Your task to perform on an android device: Go to privacy settings Image 0: 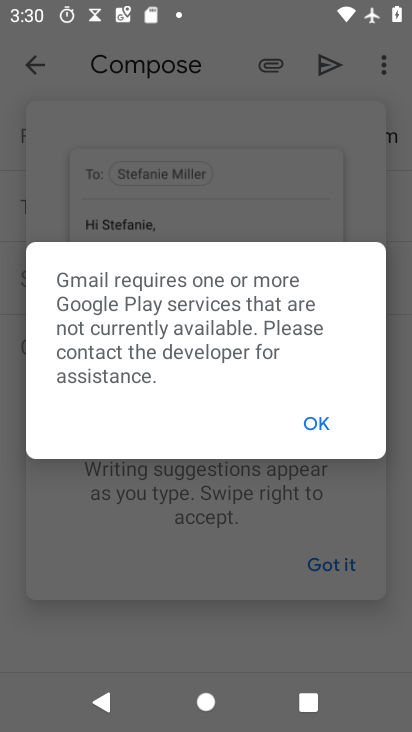
Step 0: press home button
Your task to perform on an android device: Go to privacy settings Image 1: 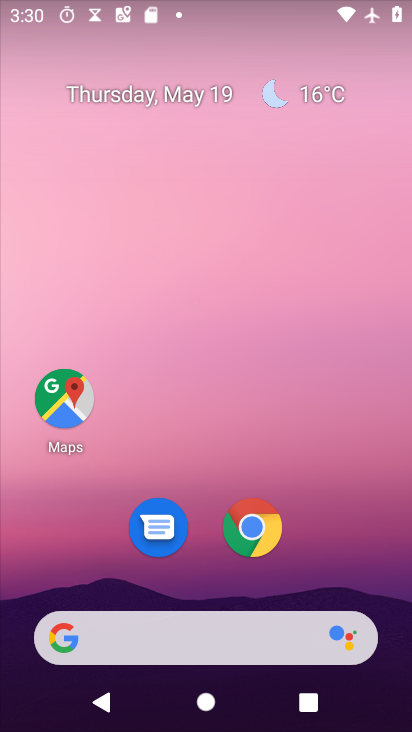
Step 1: drag from (318, 541) to (206, 8)
Your task to perform on an android device: Go to privacy settings Image 2: 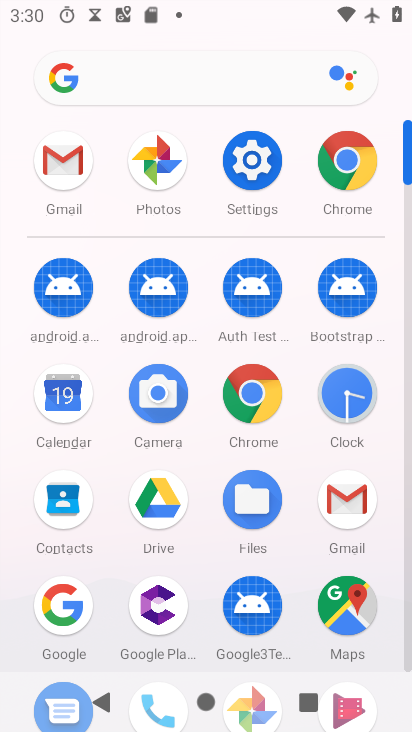
Step 2: click (249, 180)
Your task to perform on an android device: Go to privacy settings Image 3: 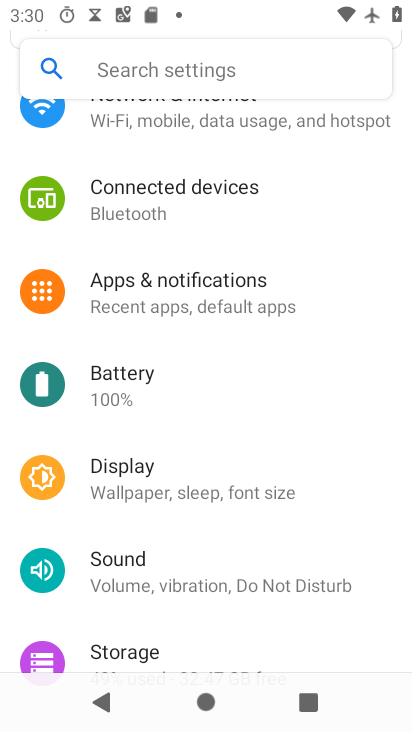
Step 3: drag from (250, 609) to (226, 170)
Your task to perform on an android device: Go to privacy settings Image 4: 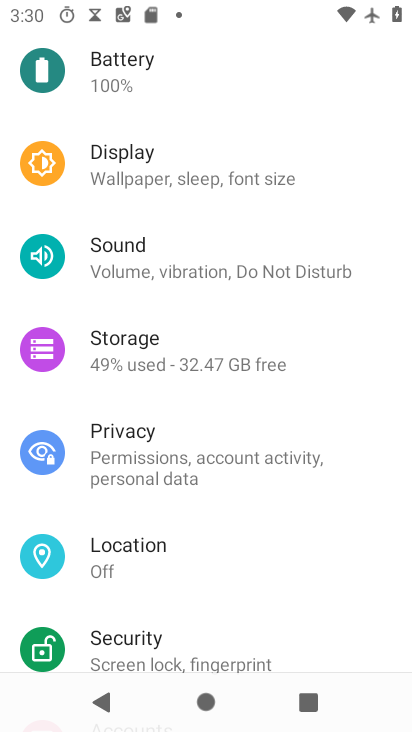
Step 4: click (232, 456)
Your task to perform on an android device: Go to privacy settings Image 5: 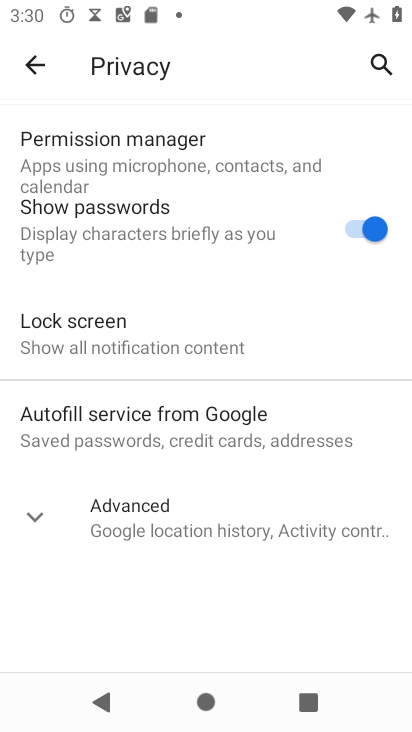
Step 5: task complete